Your task to perform on an android device: turn on sleep mode Image 0: 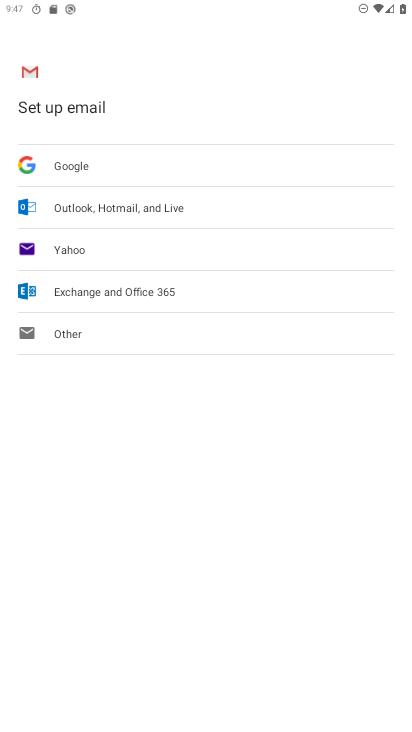
Step 0: press home button
Your task to perform on an android device: turn on sleep mode Image 1: 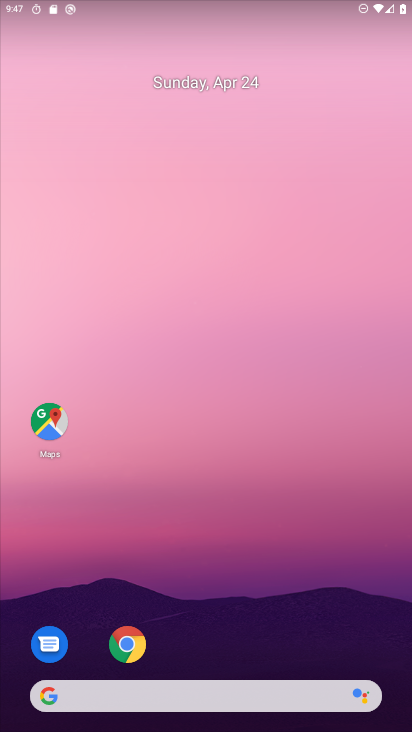
Step 1: drag from (220, 675) to (317, 718)
Your task to perform on an android device: turn on sleep mode Image 2: 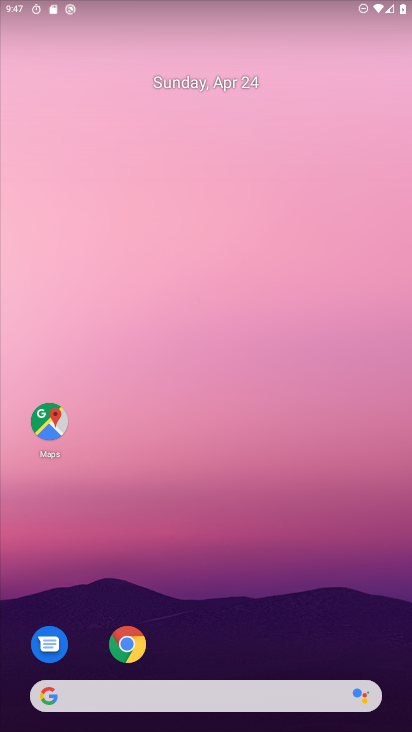
Step 2: drag from (210, 659) to (213, 26)
Your task to perform on an android device: turn on sleep mode Image 3: 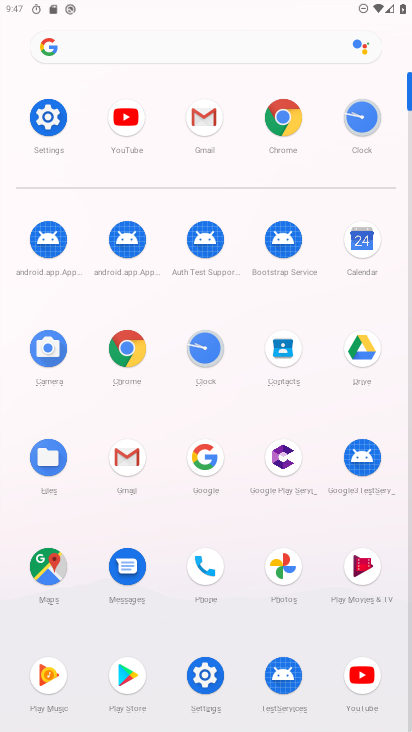
Step 3: click (41, 128)
Your task to perform on an android device: turn on sleep mode Image 4: 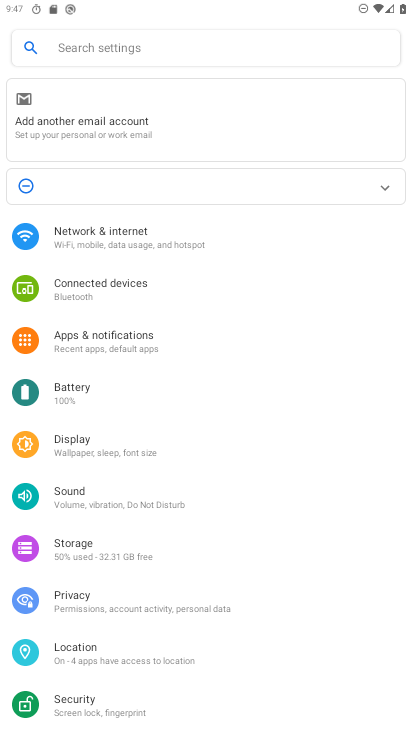
Step 4: drag from (160, 526) to (138, 189)
Your task to perform on an android device: turn on sleep mode Image 5: 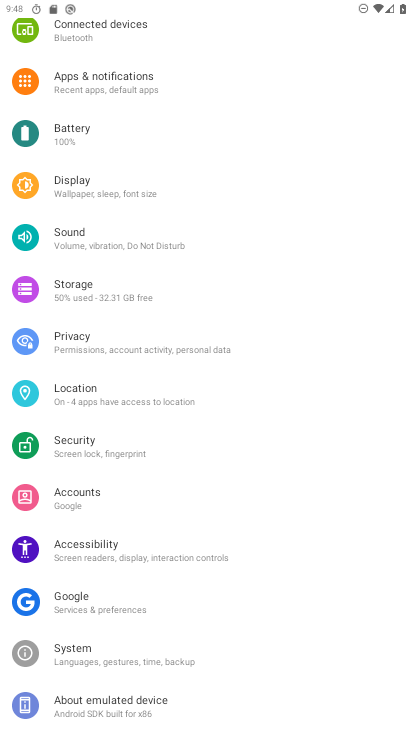
Step 5: click (73, 191)
Your task to perform on an android device: turn on sleep mode Image 6: 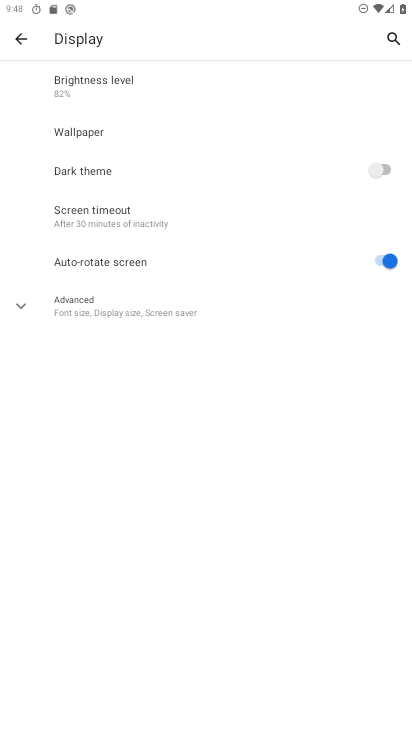
Step 6: task complete